Your task to perform on an android device: When is my next meeting? Image 0: 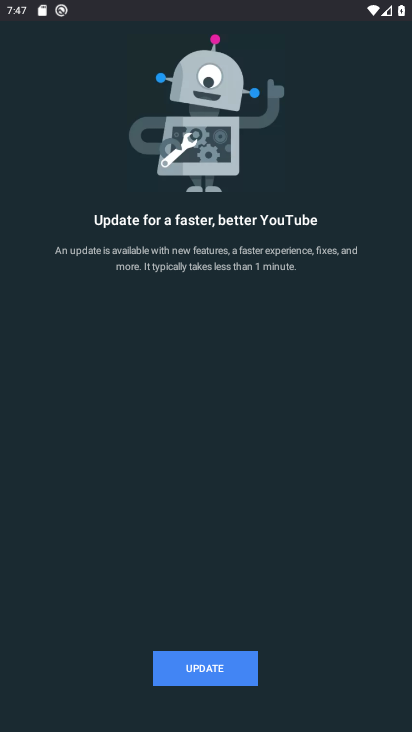
Step 0: press home button
Your task to perform on an android device: When is my next meeting? Image 1: 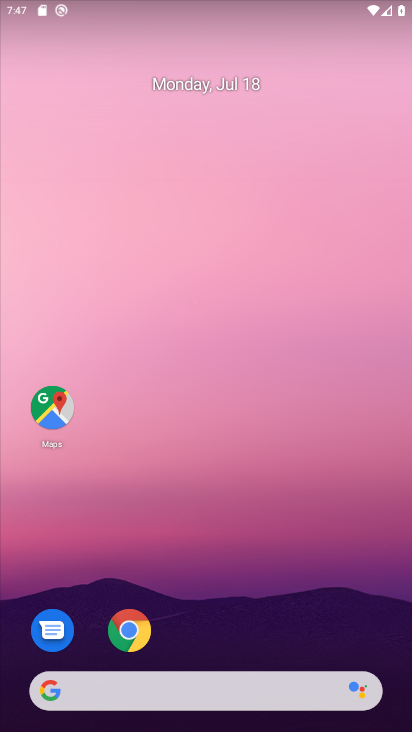
Step 1: drag from (253, 628) to (255, 321)
Your task to perform on an android device: When is my next meeting? Image 2: 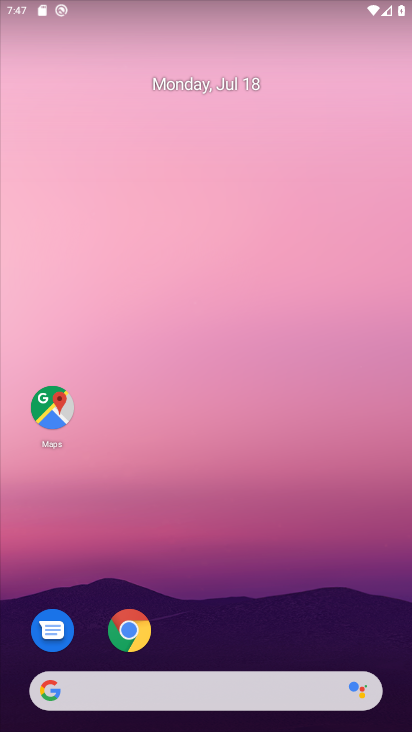
Step 2: drag from (224, 640) to (241, 271)
Your task to perform on an android device: When is my next meeting? Image 3: 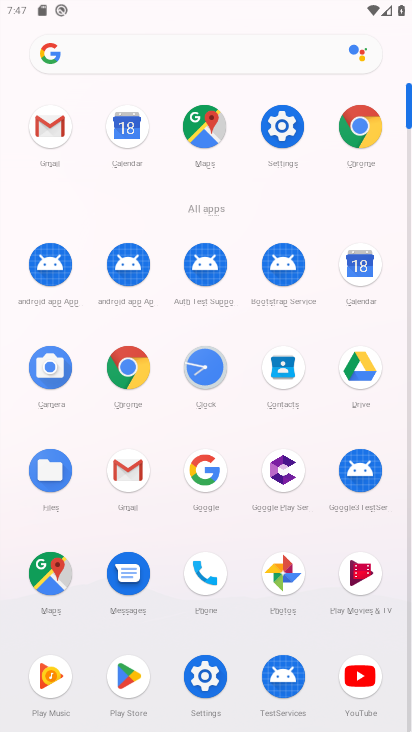
Step 3: click (104, 131)
Your task to perform on an android device: When is my next meeting? Image 4: 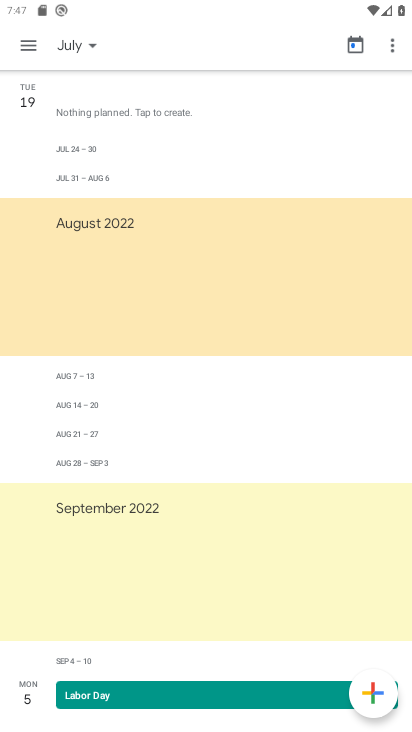
Step 4: click (76, 140)
Your task to perform on an android device: When is my next meeting? Image 5: 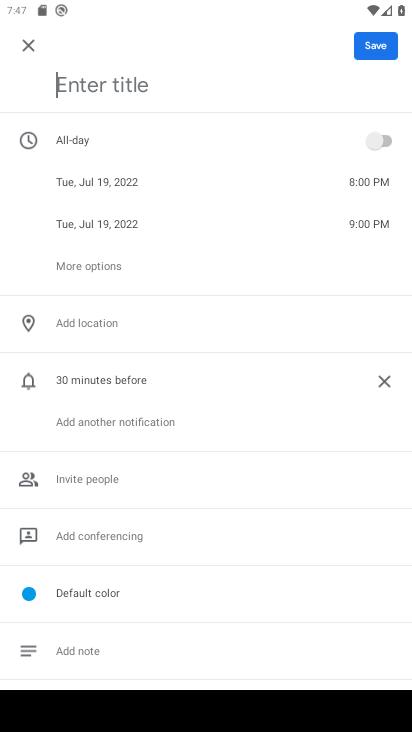
Step 5: drag from (176, 559) to (199, 186)
Your task to perform on an android device: When is my next meeting? Image 6: 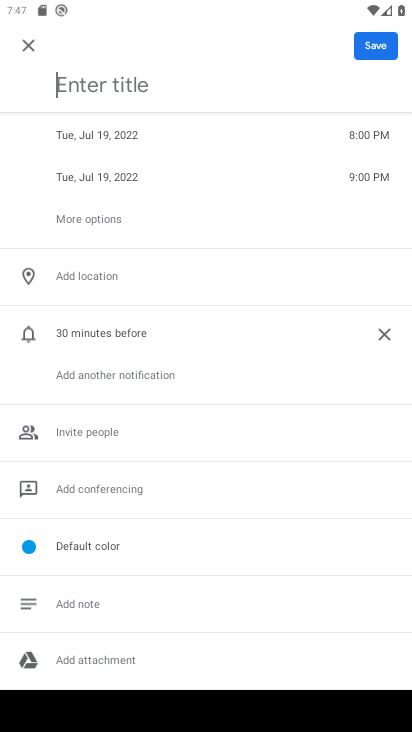
Step 6: click (26, 35)
Your task to perform on an android device: When is my next meeting? Image 7: 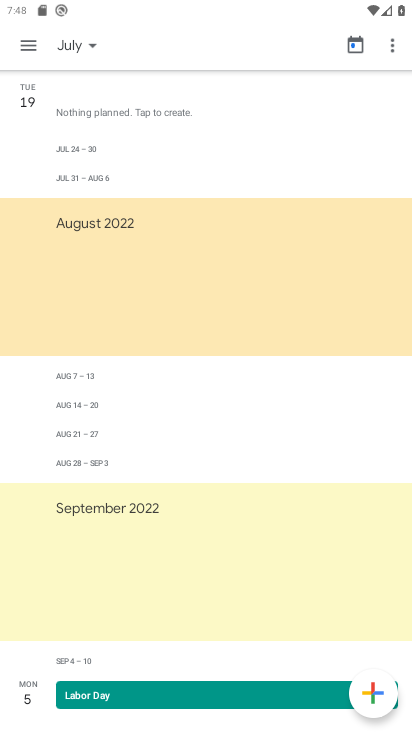
Step 7: task complete